Your task to perform on an android device: Open the web browser Image 0: 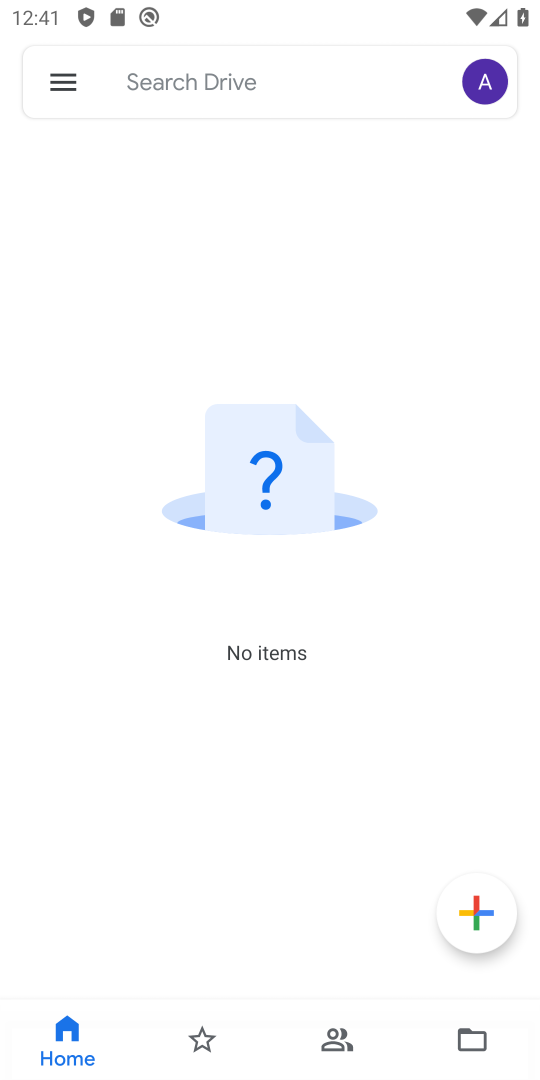
Step 0: press home button
Your task to perform on an android device: Open the web browser Image 1: 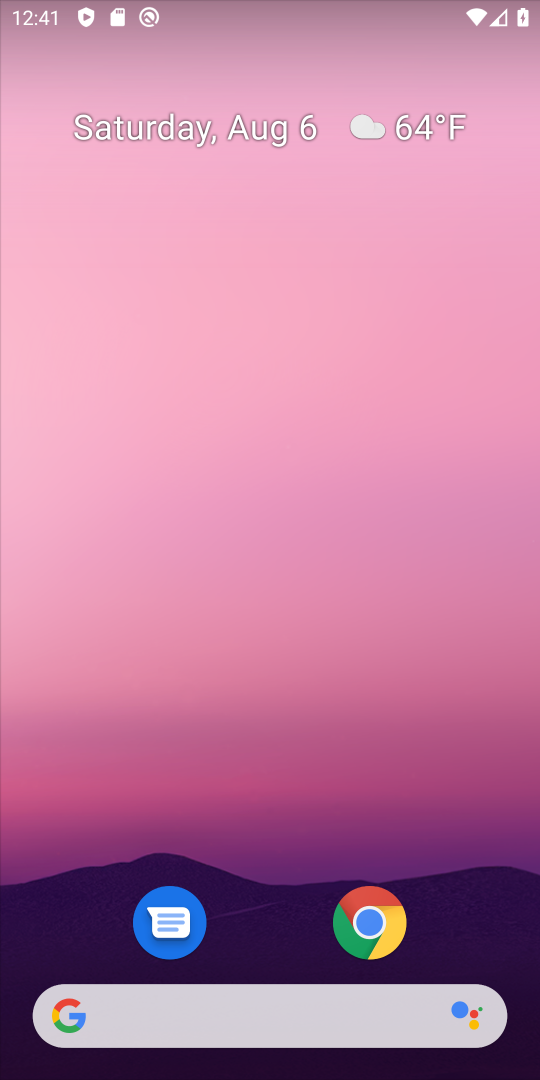
Step 1: click (379, 933)
Your task to perform on an android device: Open the web browser Image 2: 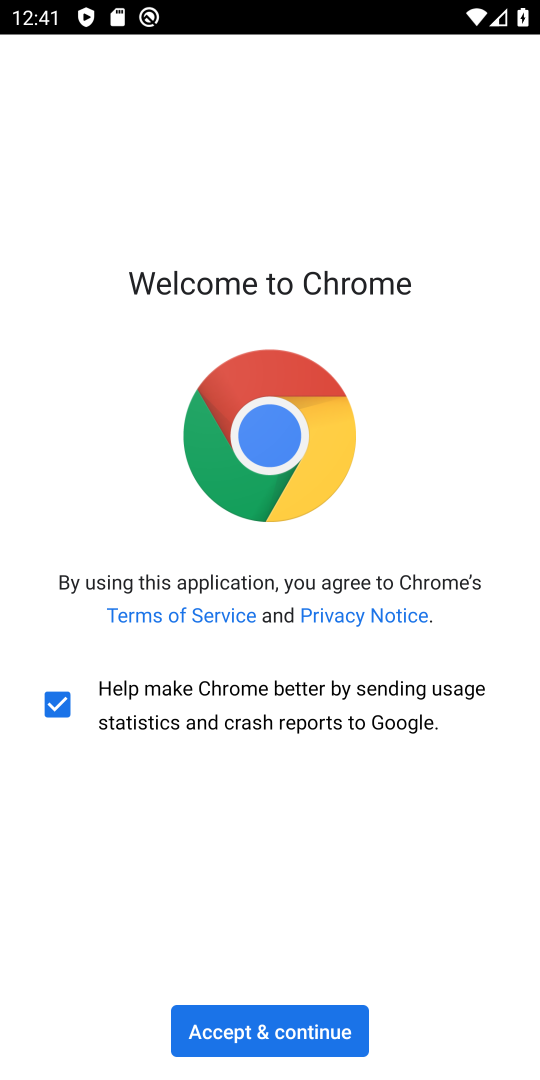
Step 2: click (247, 1027)
Your task to perform on an android device: Open the web browser Image 3: 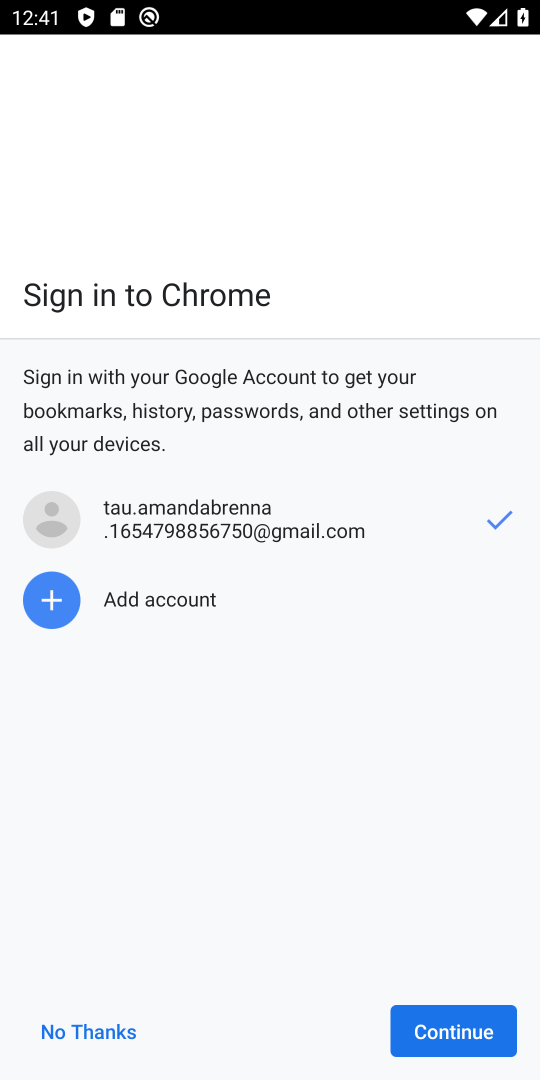
Step 3: click (250, 1022)
Your task to perform on an android device: Open the web browser Image 4: 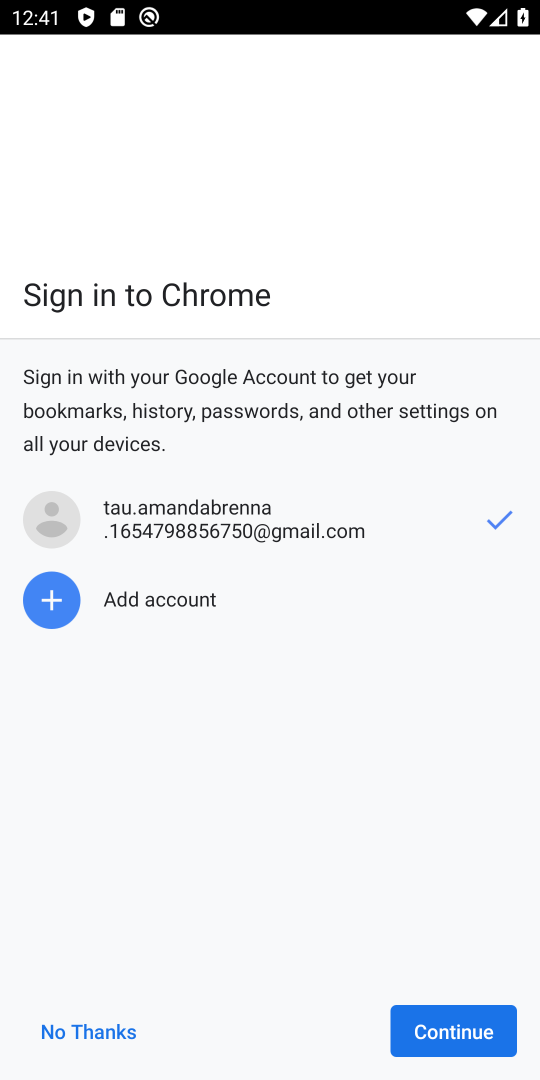
Step 4: click (443, 1040)
Your task to perform on an android device: Open the web browser Image 5: 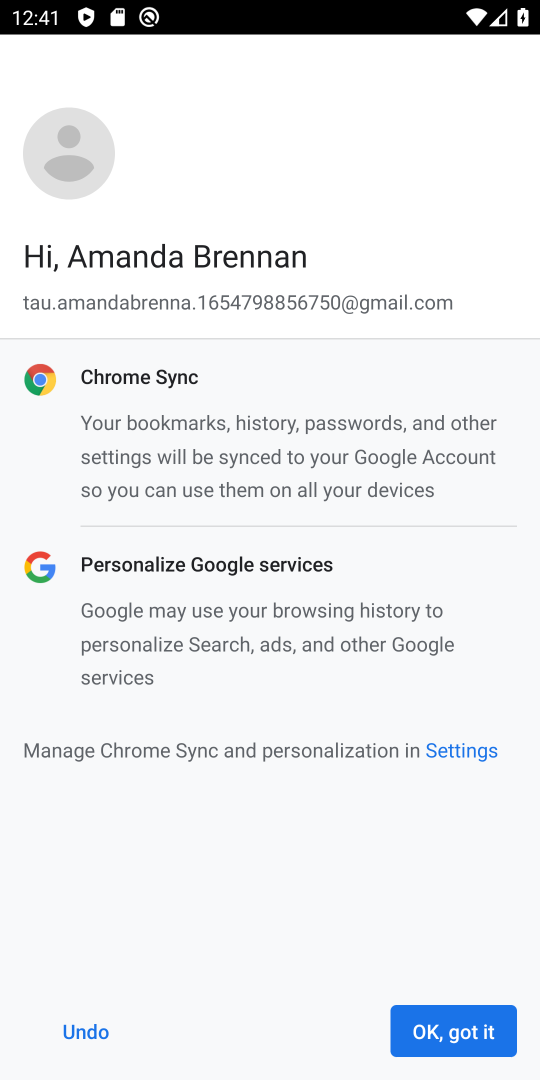
Step 5: click (485, 1038)
Your task to perform on an android device: Open the web browser Image 6: 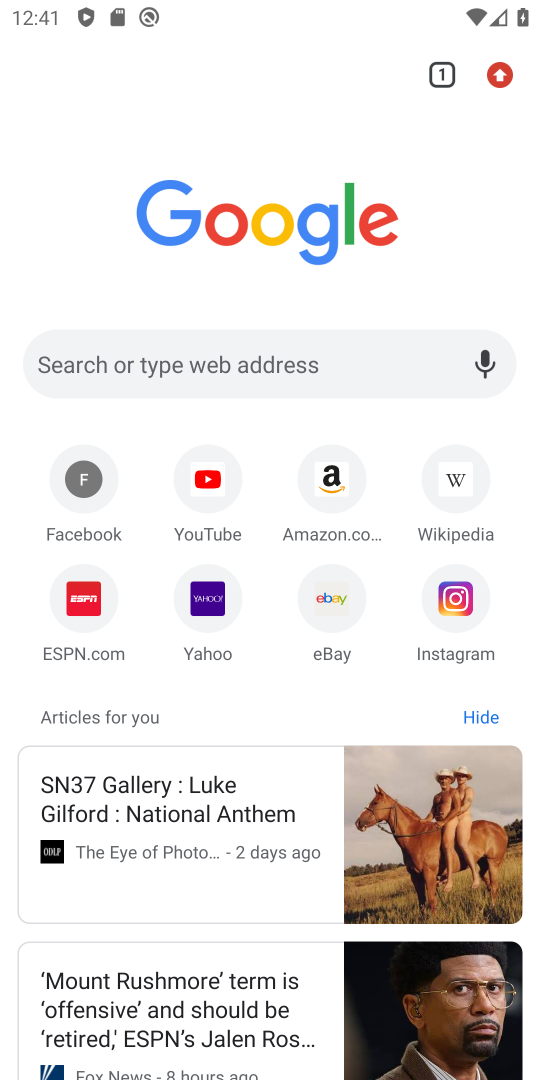
Step 6: task complete